Your task to perform on an android device: Open Yahoo.com Image 0: 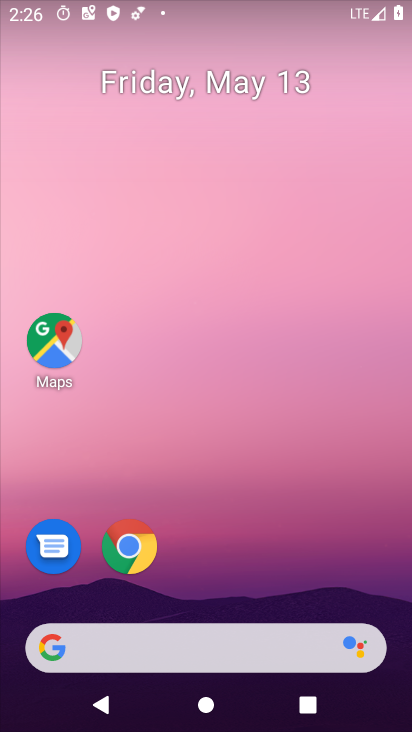
Step 0: click (152, 560)
Your task to perform on an android device: Open Yahoo.com Image 1: 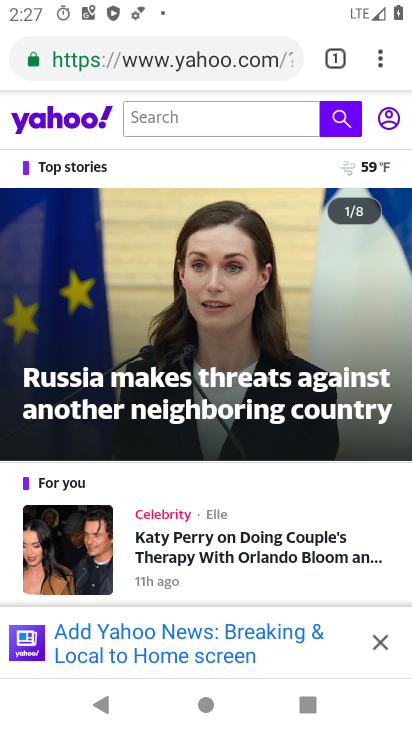
Step 1: task complete